Your task to perform on an android device: Open Chrome and go to the settings page Image 0: 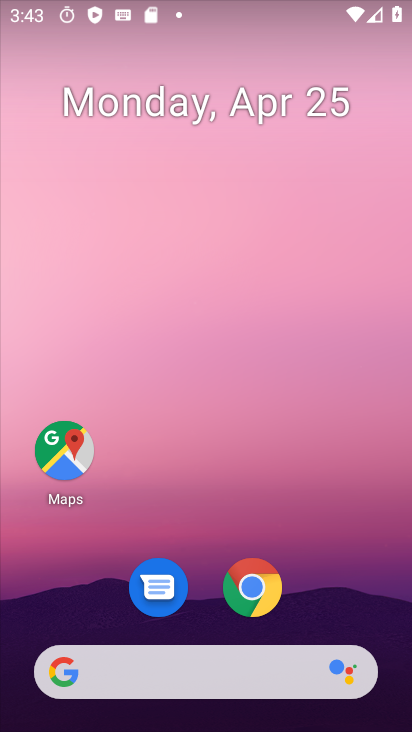
Step 0: drag from (395, 596) to (279, 216)
Your task to perform on an android device: Open Chrome and go to the settings page Image 1: 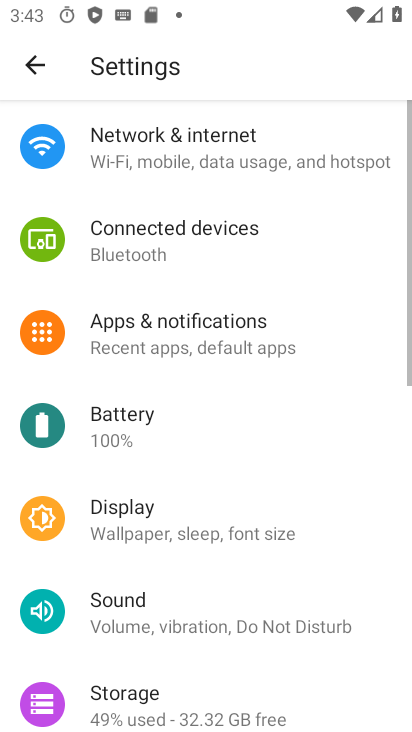
Step 1: press home button
Your task to perform on an android device: Open Chrome and go to the settings page Image 2: 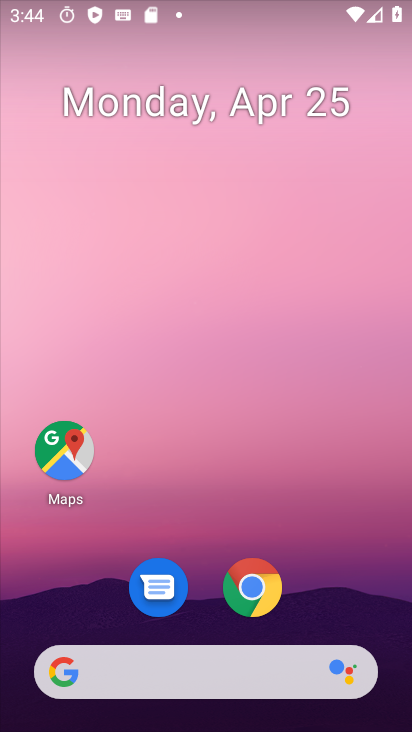
Step 2: drag from (353, 542) to (243, 114)
Your task to perform on an android device: Open Chrome and go to the settings page Image 3: 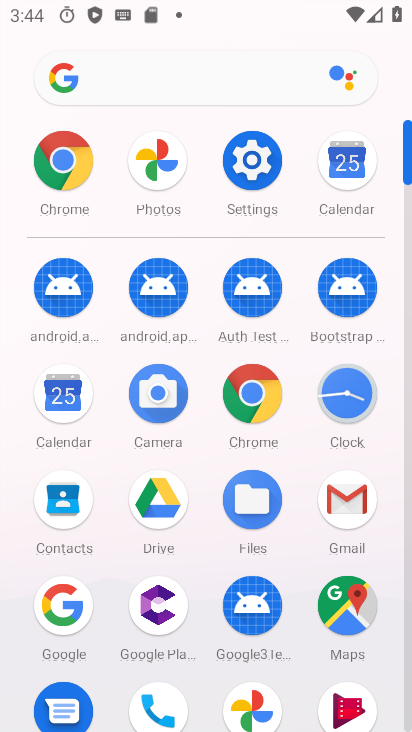
Step 3: click (239, 402)
Your task to perform on an android device: Open Chrome and go to the settings page Image 4: 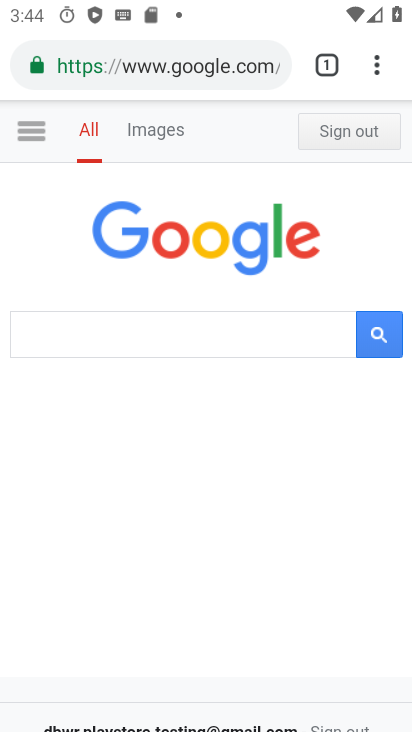
Step 4: drag from (377, 54) to (406, 339)
Your task to perform on an android device: Open Chrome and go to the settings page Image 5: 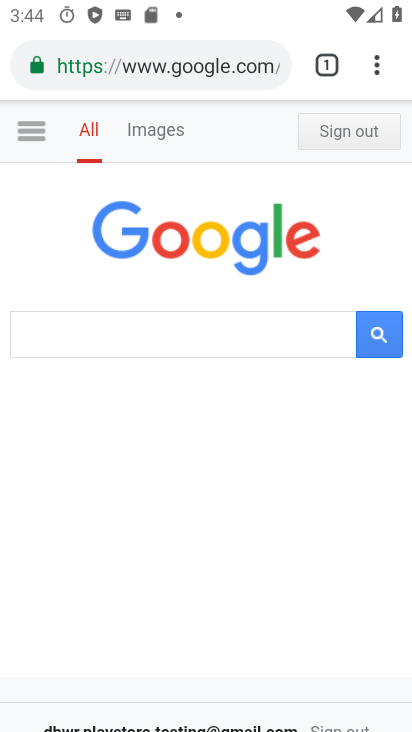
Step 5: drag from (270, 648) to (267, 106)
Your task to perform on an android device: Open Chrome and go to the settings page Image 6: 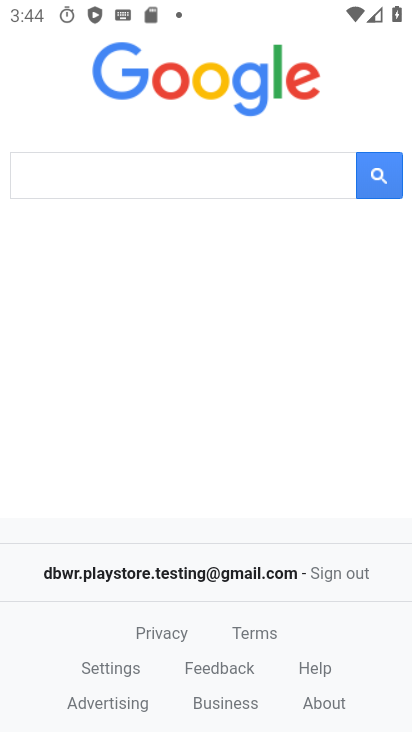
Step 6: drag from (375, 67) to (403, 358)
Your task to perform on an android device: Open Chrome and go to the settings page Image 7: 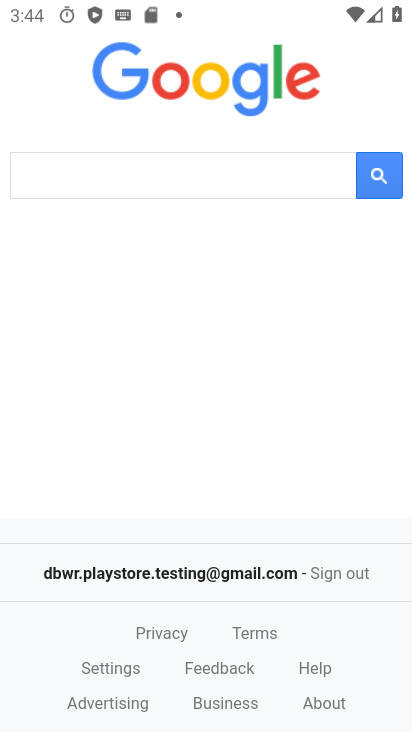
Step 7: click (272, 478)
Your task to perform on an android device: Open Chrome and go to the settings page Image 8: 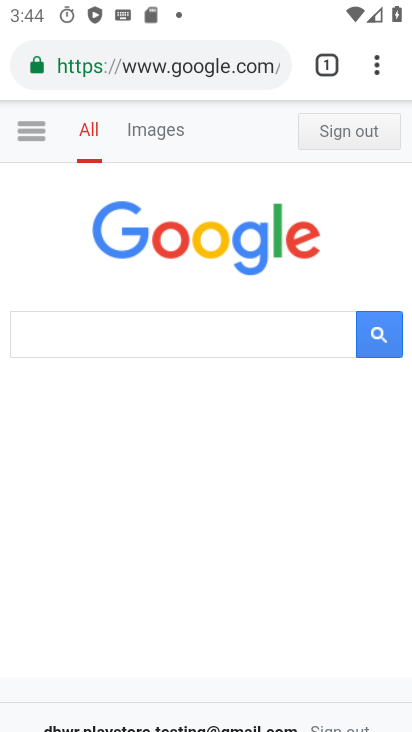
Step 8: task complete